Your task to perform on an android device: Is it going to rain today? Image 0: 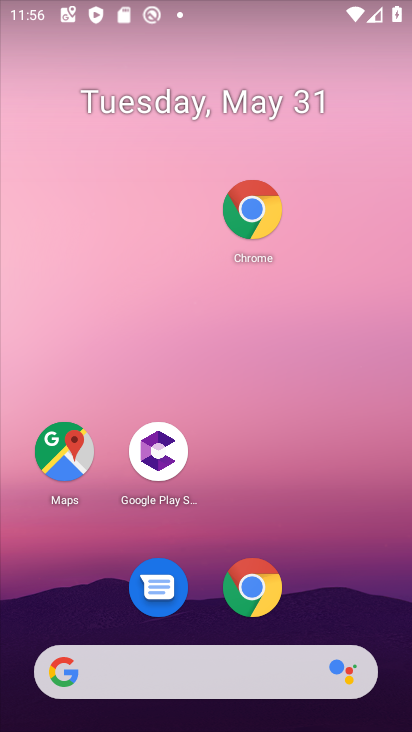
Step 0: drag from (10, 299) to (240, 299)
Your task to perform on an android device: Is it going to rain today? Image 1: 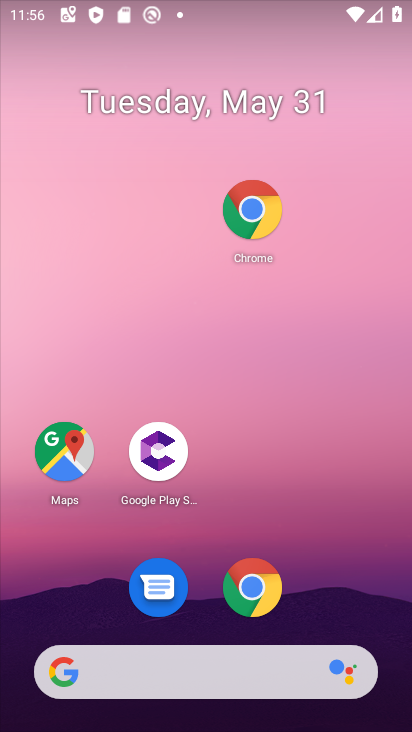
Step 1: click (200, 259)
Your task to perform on an android device: Is it going to rain today? Image 2: 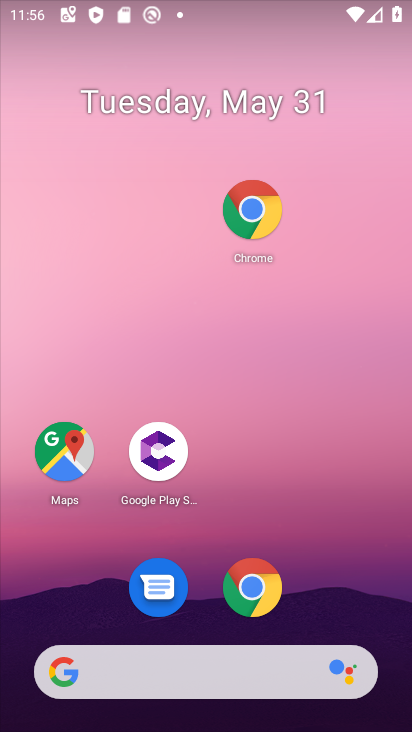
Step 2: drag from (35, 296) to (147, 282)
Your task to perform on an android device: Is it going to rain today? Image 3: 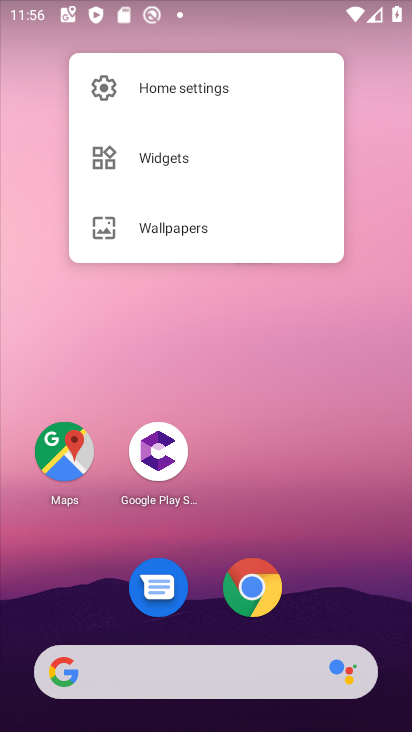
Step 3: click (19, 335)
Your task to perform on an android device: Is it going to rain today? Image 4: 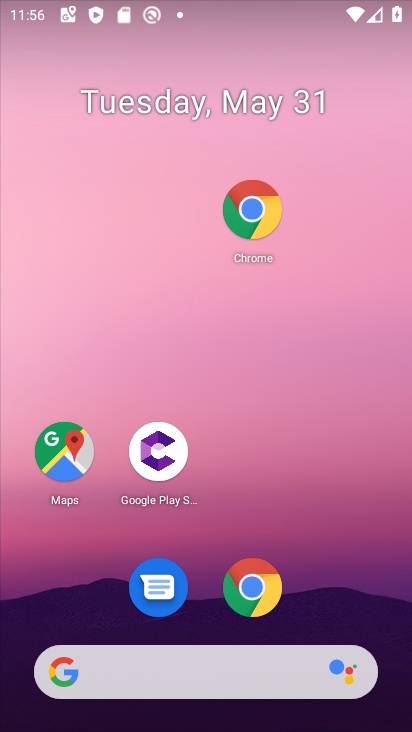
Step 4: drag from (19, 335) to (393, 339)
Your task to perform on an android device: Is it going to rain today? Image 5: 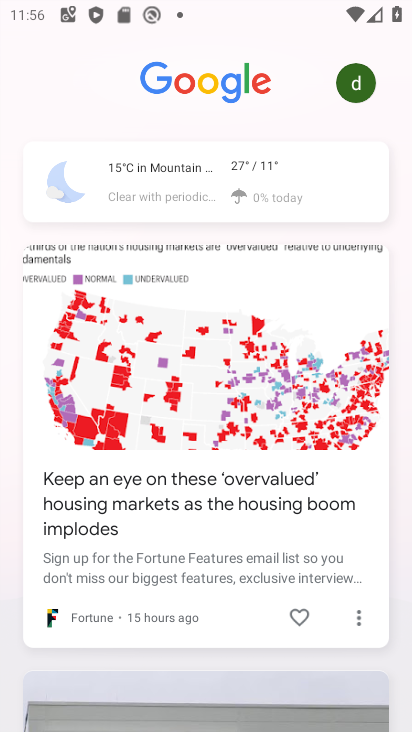
Step 5: click (243, 163)
Your task to perform on an android device: Is it going to rain today? Image 6: 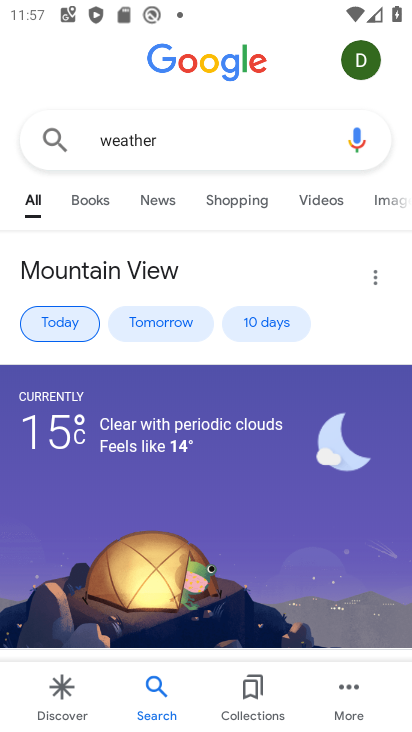
Step 6: task complete